Your task to perform on an android device: Open the phone app and click the voicemail tab. Image 0: 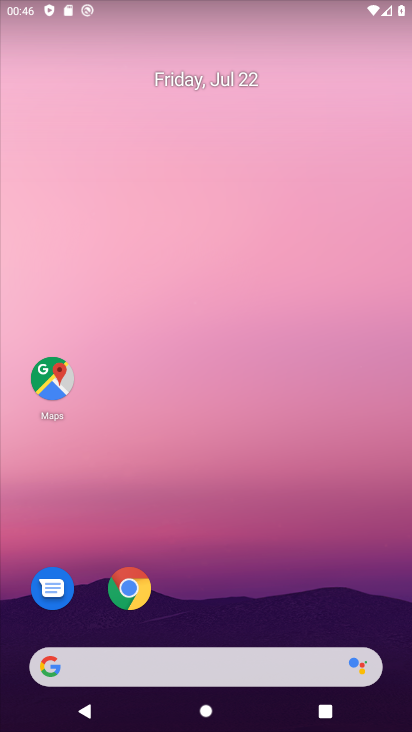
Step 0: drag from (199, 636) to (282, 29)
Your task to perform on an android device: Open the phone app and click the voicemail tab. Image 1: 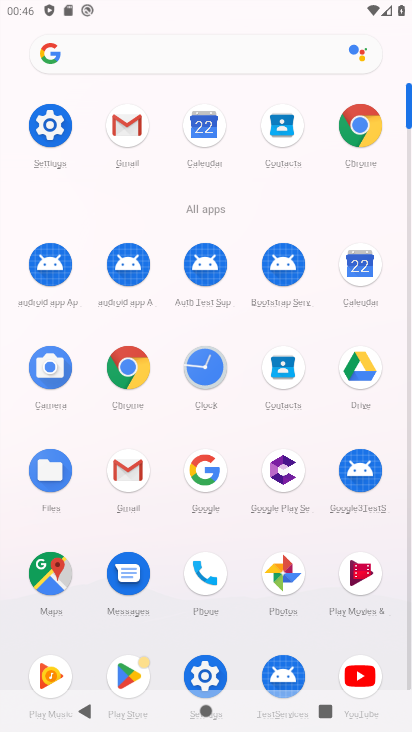
Step 1: click (191, 572)
Your task to perform on an android device: Open the phone app and click the voicemail tab. Image 2: 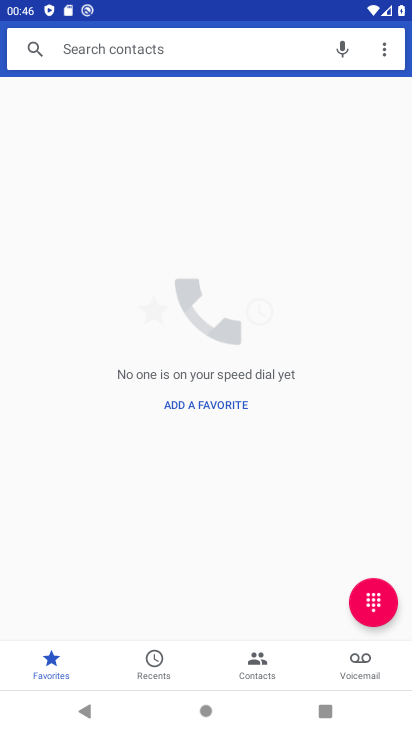
Step 2: click (366, 658)
Your task to perform on an android device: Open the phone app and click the voicemail tab. Image 3: 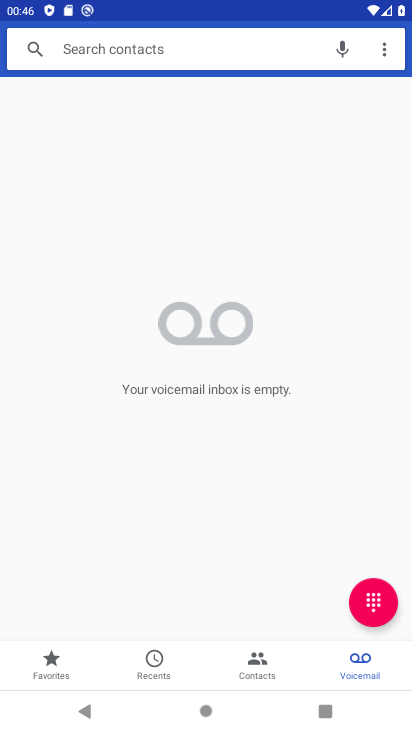
Step 3: task complete